Your task to perform on an android device: change timer sound Image 0: 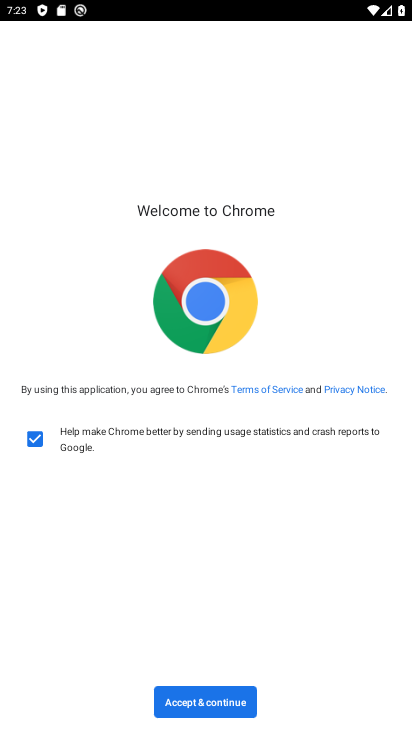
Step 0: press home button
Your task to perform on an android device: change timer sound Image 1: 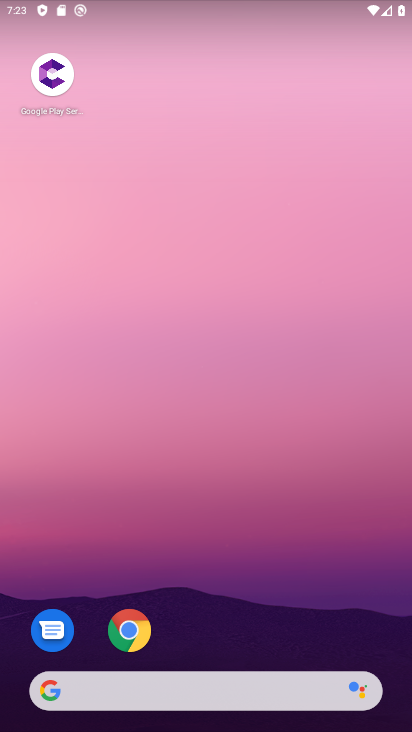
Step 1: drag from (232, 529) to (272, 42)
Your task to perform on an android device: change timer sound Image 2: 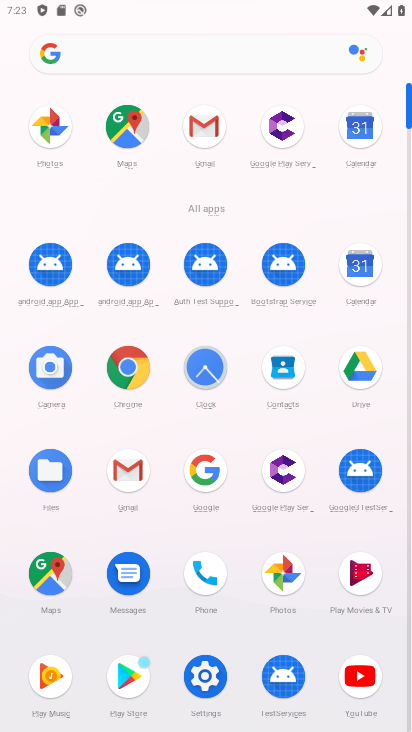
Step 2: click (211, 370)
Your task to perform on an android device: change timer sound Image 3: 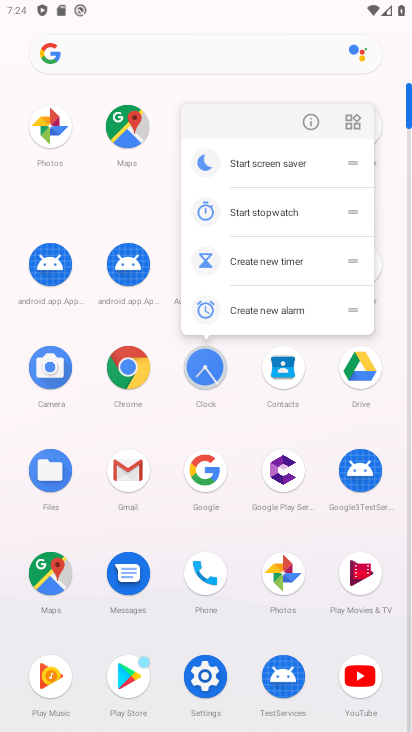
Step 3: click (215, 372)
Your task to perform on an android device: change timer sound Image 4: 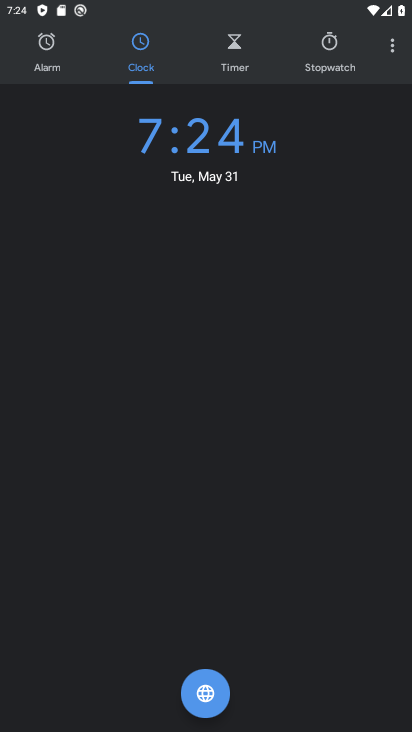
Step 4: click (393, 48)
Your task to perform on an android device: change timer sound Image 5: 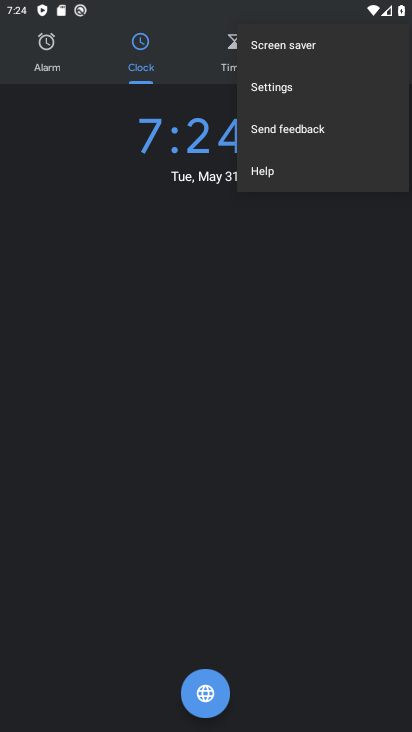
Step 5: click (290, 88)
Your task to perform on an android device: change timer sound Image 6: 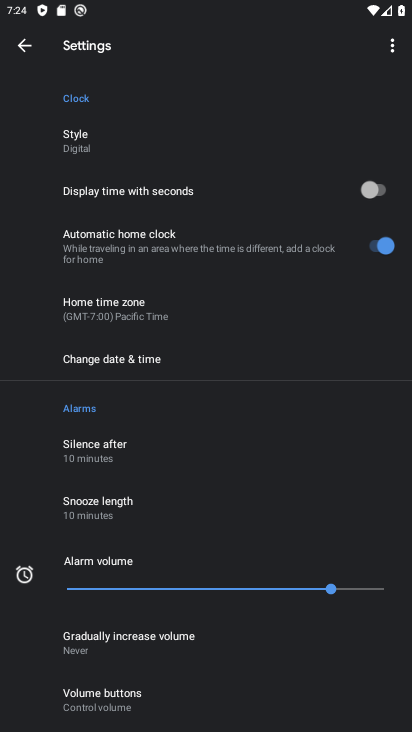
Step 6: drag from (146, 509) to (179, 369)
Your task to perform on an android device: change timer sound Image 7: 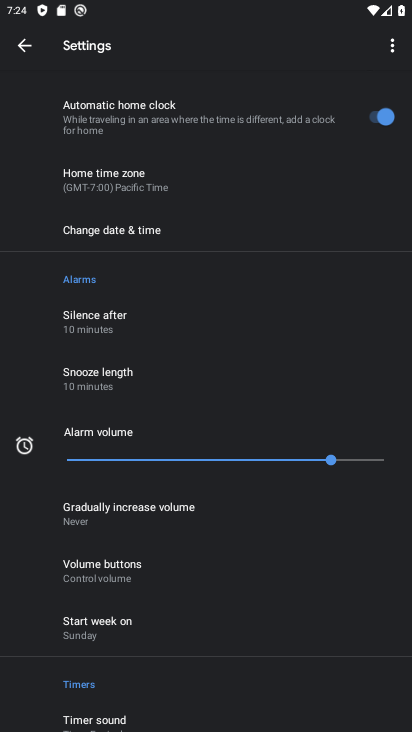
Step 7: drag from (132, 596) to (198, 328)
Your task to perform on an android device: change timer sound Image 8: 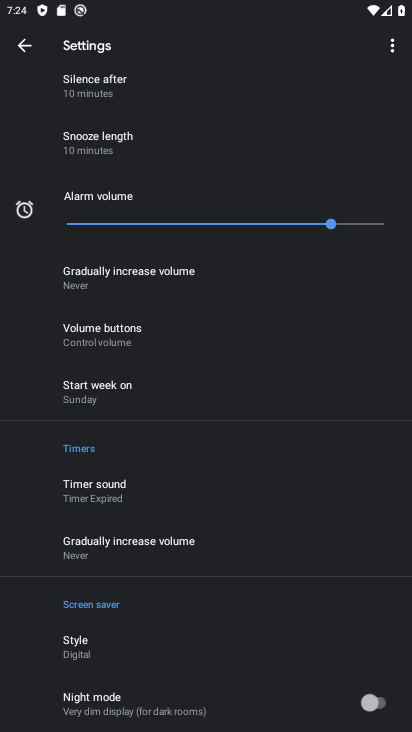
Step 8: click (117, 495)
Your task to perform on an android device: change timer sound Image 9: 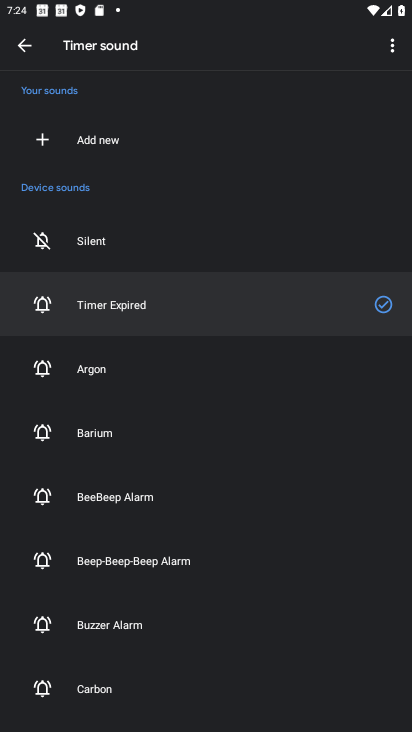
Step 9: click (137, 418)
Your task to perform on an android device: change timer sound Image 10: 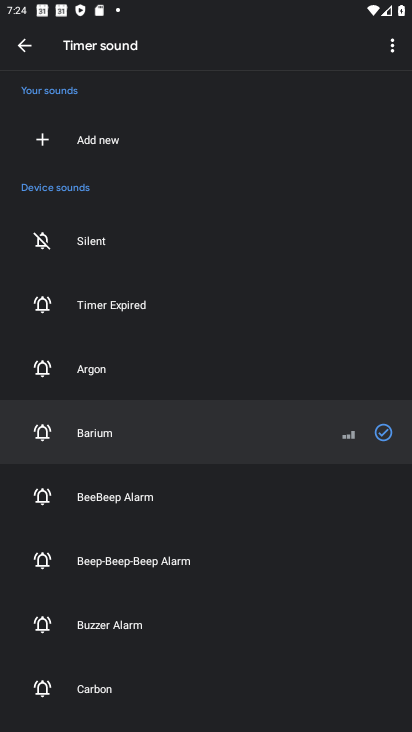
Step 10: task complete